Your task to perform on an android device: Open Chrome and go to the settings page Image 0: 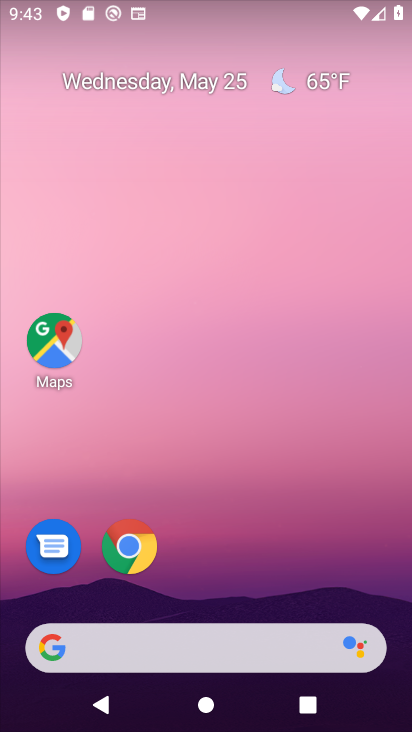
Step 0: press back button
Your task to perform on an android device: Open Chrome and go to the settings page Image 1: 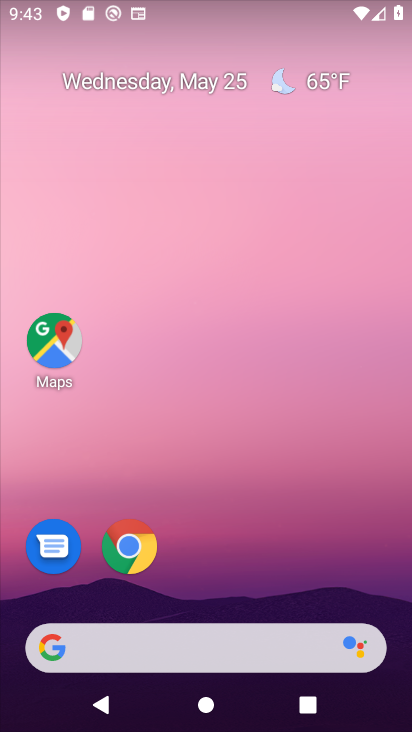
Step 1: press home button
Your task to perform on an android device: Open Chrome and go to the settings page Image 2: 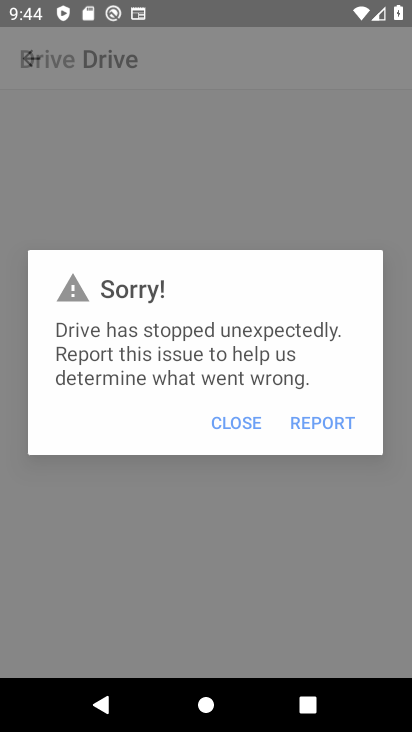
Step 2: click (193, 85)
Your task to perform on an android device: Open Chrome and go to the settings page Image 3: 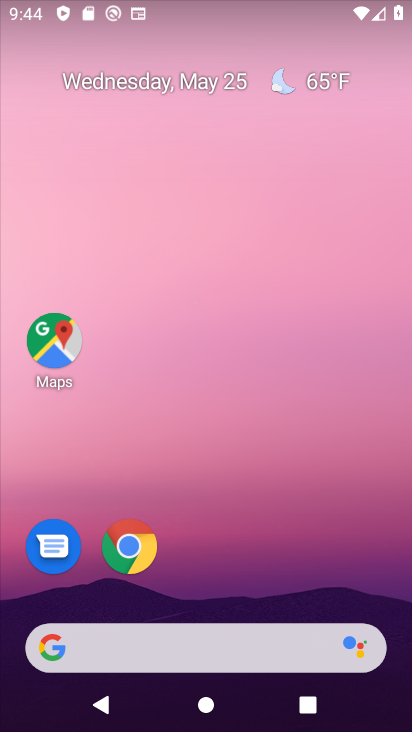
Step 3: drag from (308, 543) to (216, 37)
Your task to perform on an android device: Open Chrome and go to the settings page Image 4: 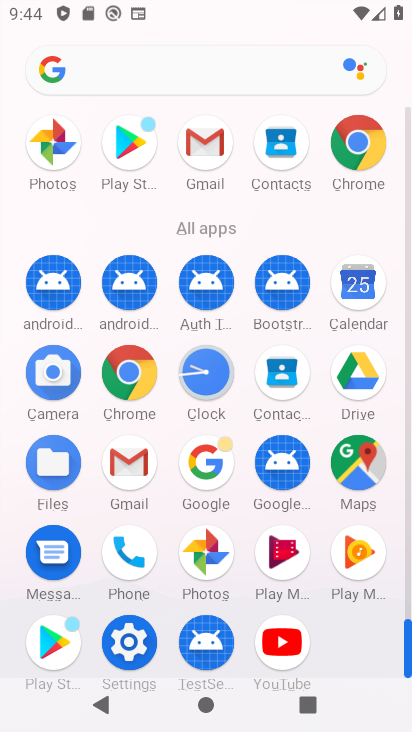
Step 4: click (357, 142)
Your task to perform on an android device: Open Chrome and go to the settings page Image 5: 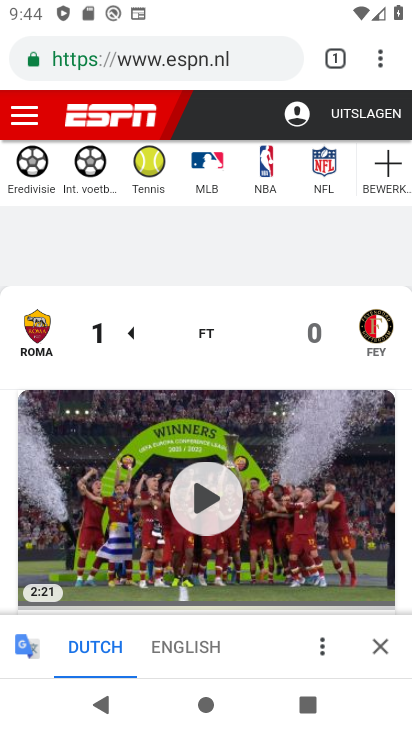
Step 5: task complete